Your task to perform on an android device: check android version Image 0: 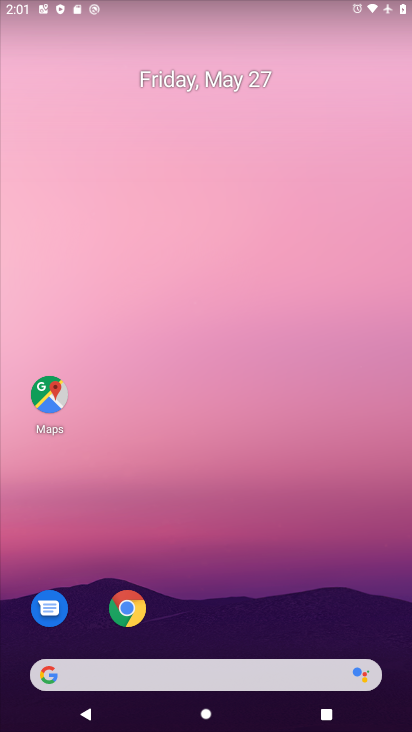
Step 0: press home button
Your task to perform on an android device: check android version Image 1: 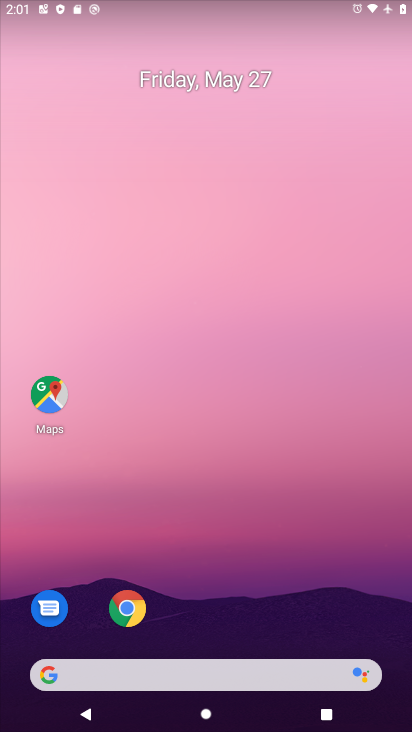
Step 1: drag from (155, 665) to (280, 89)
Your task to perform on an android device: check android version Image 2: 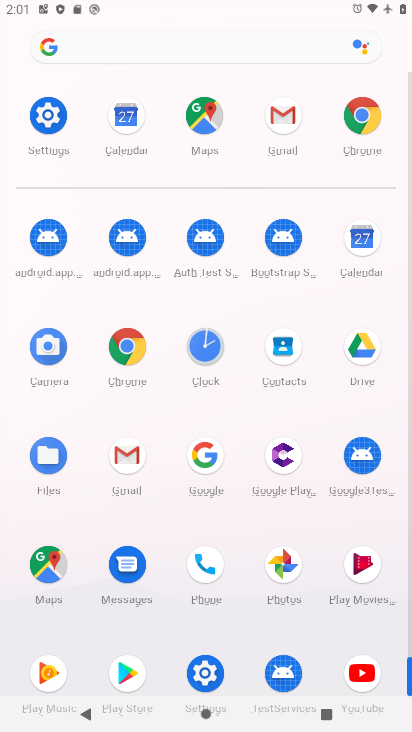
Step 2: click (49, 123)
Your task to perform on an android device: check android version Image 3: 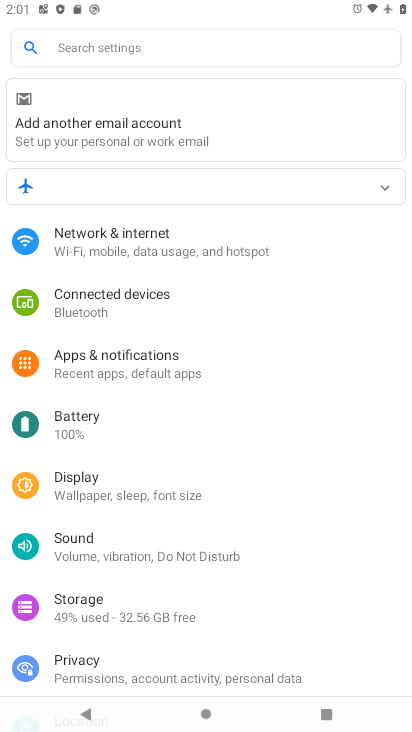
Step 3: drag from (203, 650) to (326, 41)
Your task to perform on an android device: check android version Image 4: 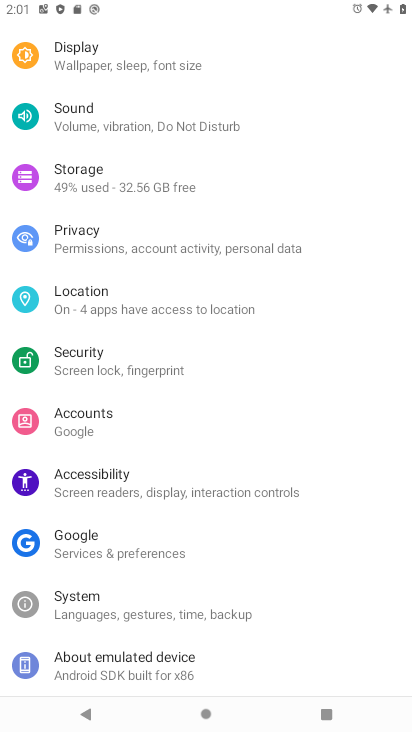
Step 4: click (121, 659)
Your task to perform on an android device: check android version Image 5: 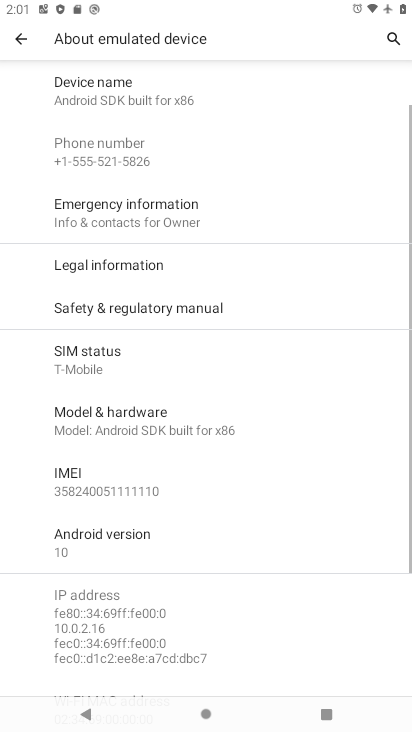
Step 5: click (127, 532)
Your task to perform on an android device: check android version Image 6: 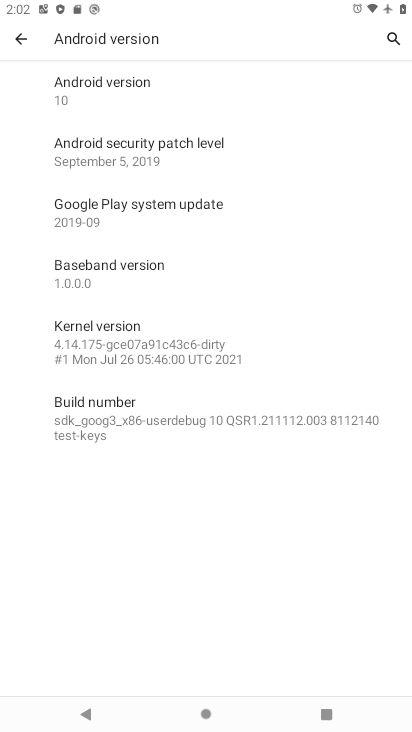
Step 6: task complete